Your task to perform on an android device: open chrome and create a bookmark for the current page Image 0: 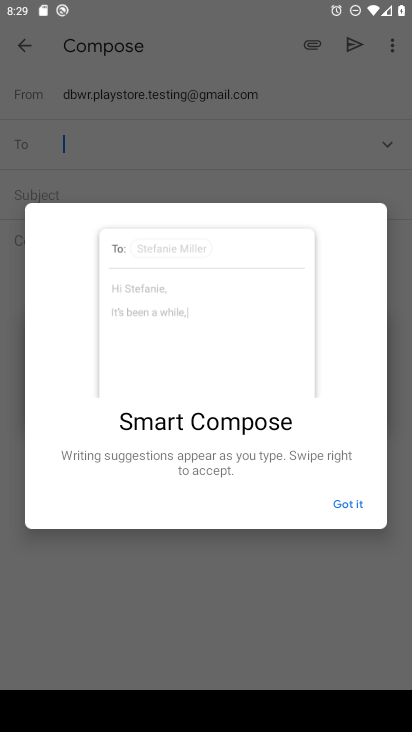
Step 0: press home button
Your task to perform on an android device: open chrome and create a bookmark for the current page Image 1: 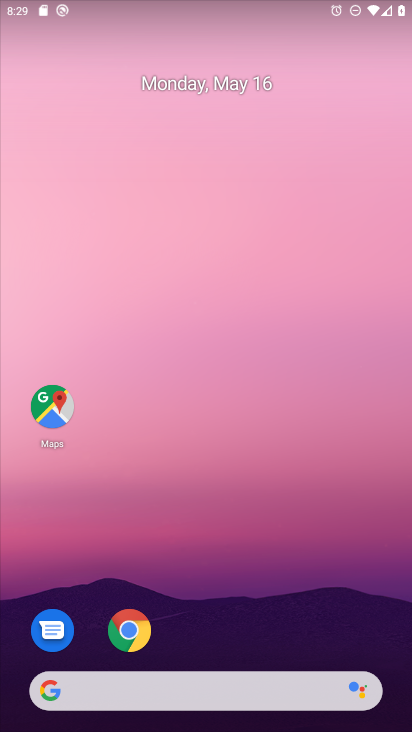
Step 1: click (128, 625)
Your task to perform on an android device: open chrome and create a bookmark for the current page Image 2: 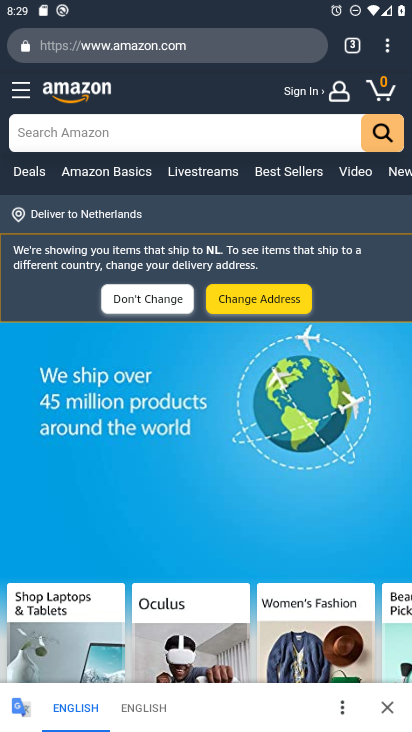
Step 2: click (375, 45)
Your task to perform on an android device: open chrome and create a bookmark for the current page Image 3: 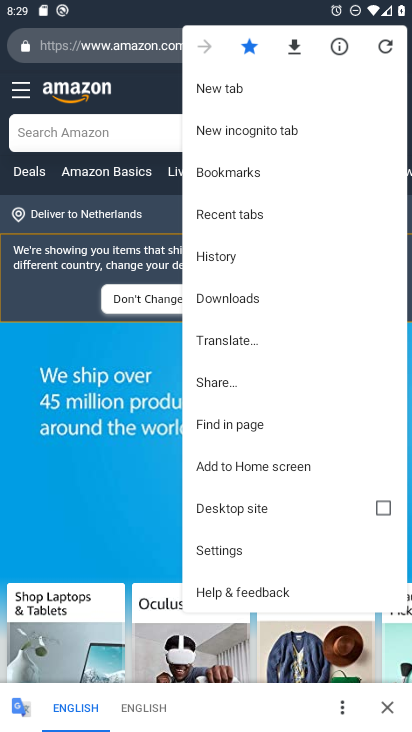
Step 3: click (231, 173)
Your task to perform on an android device: open chrome and create a bookmark for the current page Image 4: 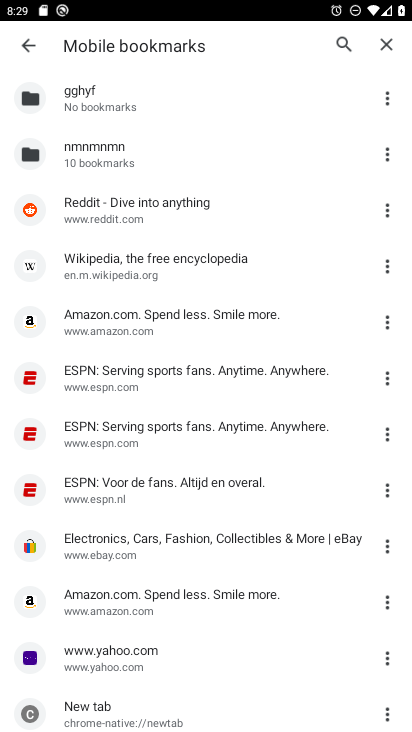
Step 4: task complete